Your task to perform on an android device: What's a good restaurant in Boston? Image 0: 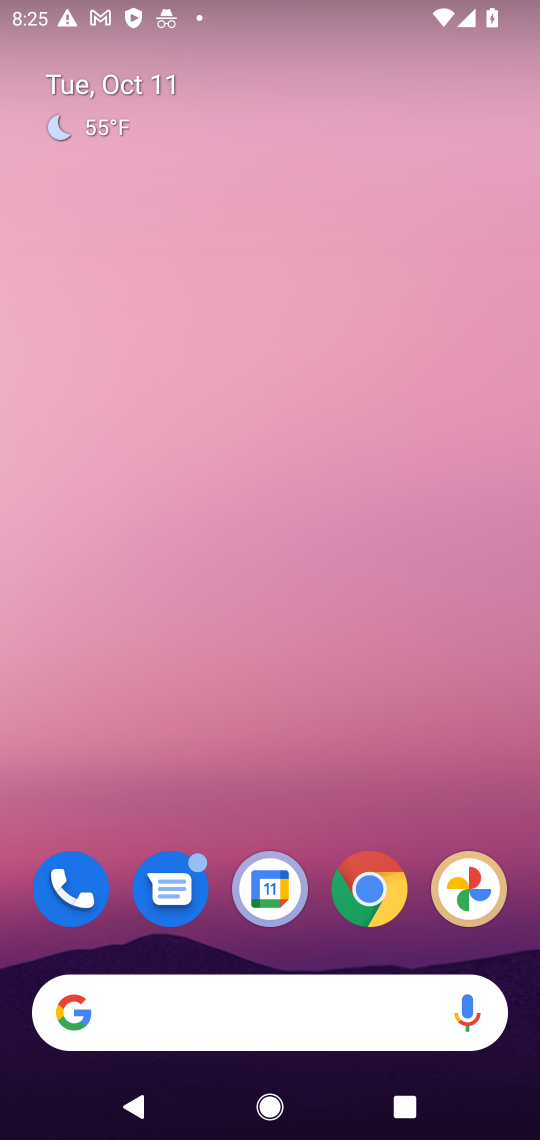
Step 0: click (216, 1037)
Your task to perform on an android device: What's a good restaurant in Boston? Image 1: 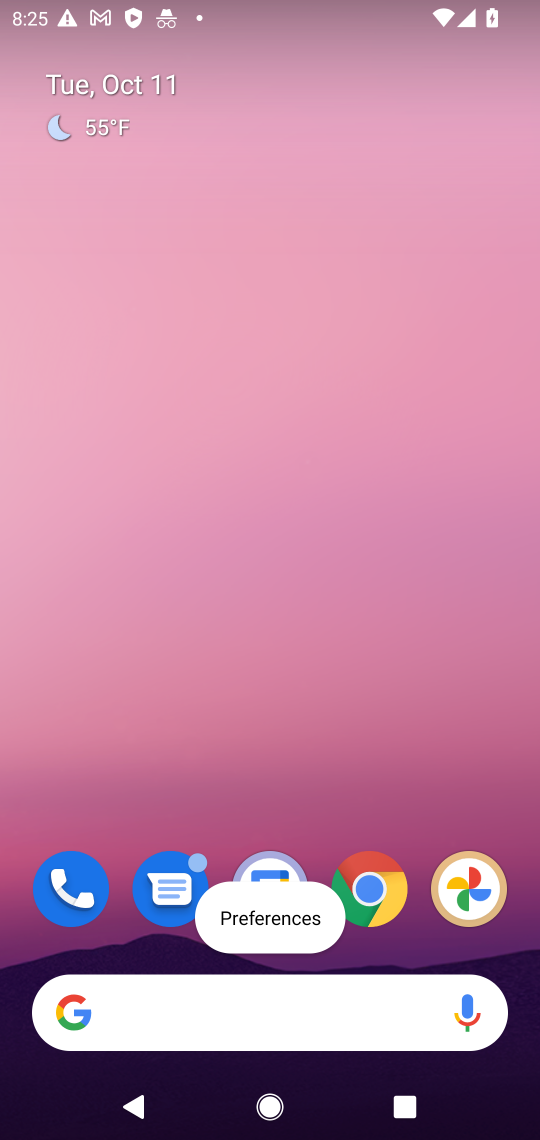
Step 1: click (211, 1014)
Your task to perform on an android device: What's a good restaurant in Boston? Image 2: 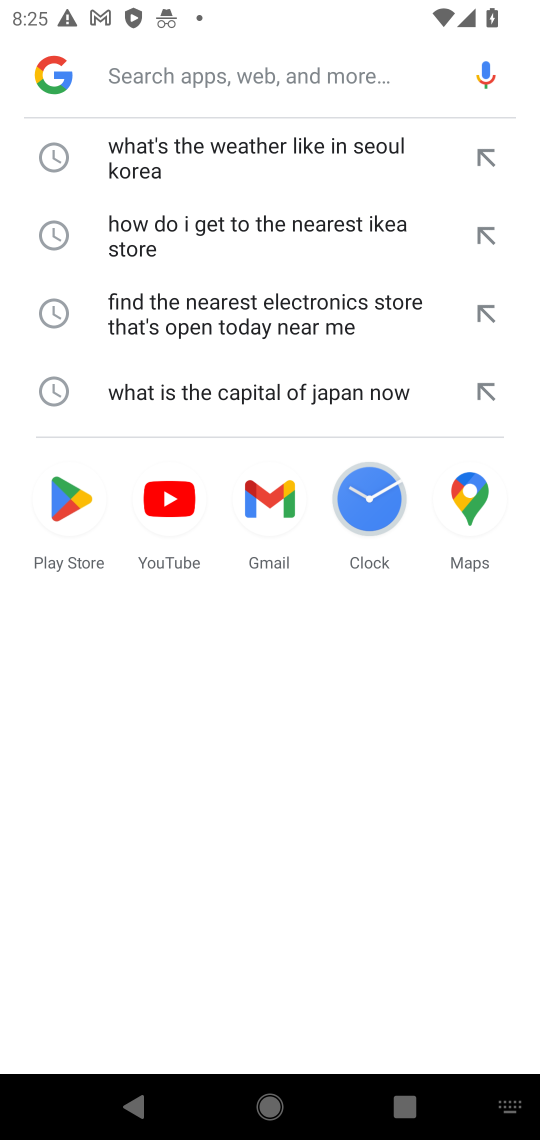
Step 2: click (202, 1017)
Your task to perform on an android device: What's a good restaurant in Boston? Image 3: 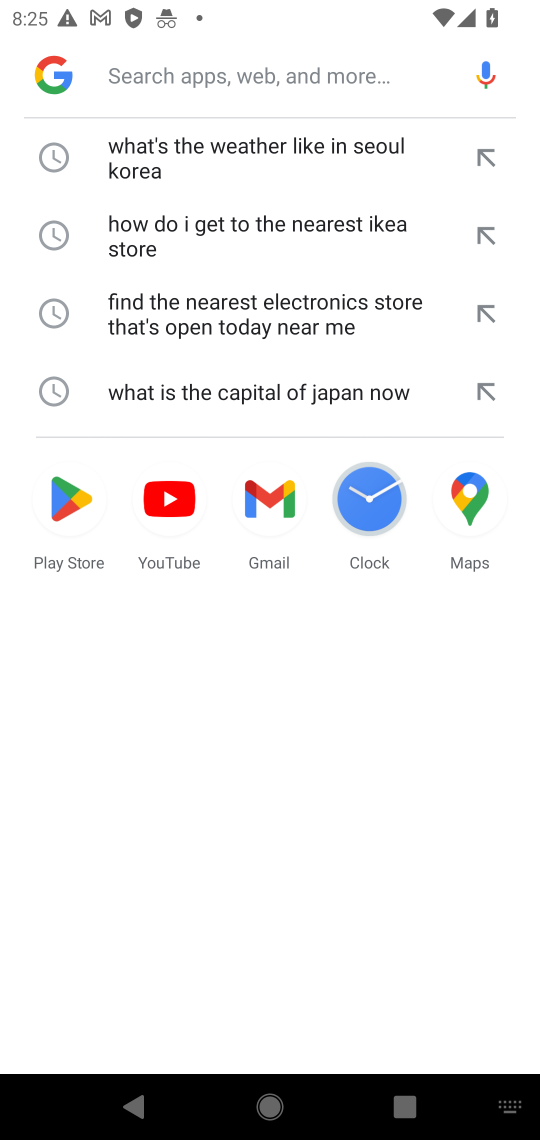
Step 3: click (156, 76)
Your task to perform on an android device: What's a good restaurant in Boston? Image 4: 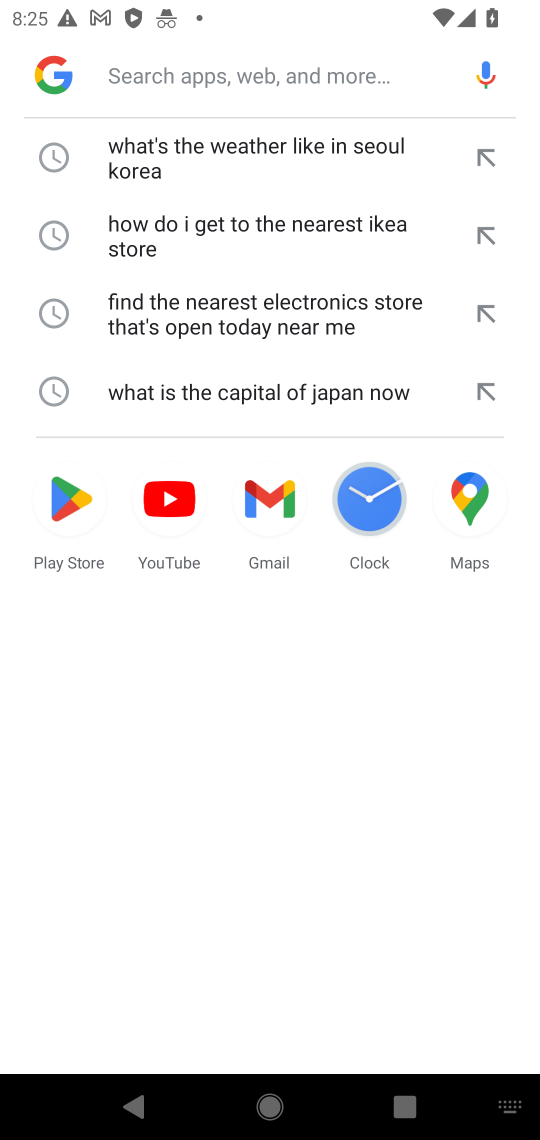
Step 4: type "What's a good restaurant in Boston?"
Your task to perform on an android device: What's a good restaurant in Boston? Image 5: 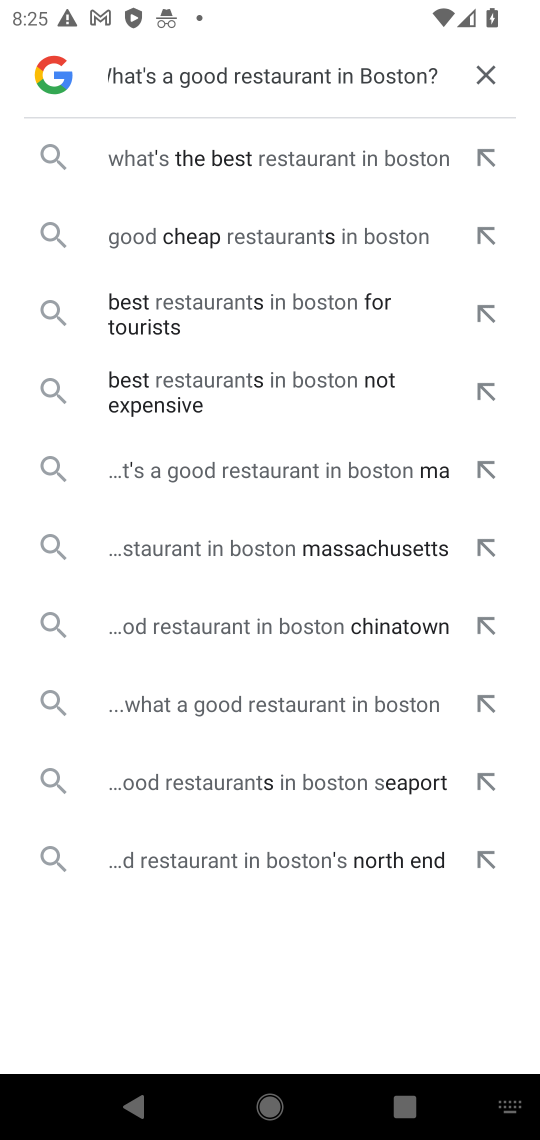
Step 5: click (303, 162)
Your task to perform on an android device: What's a good restaurant in Boston? Image 6: 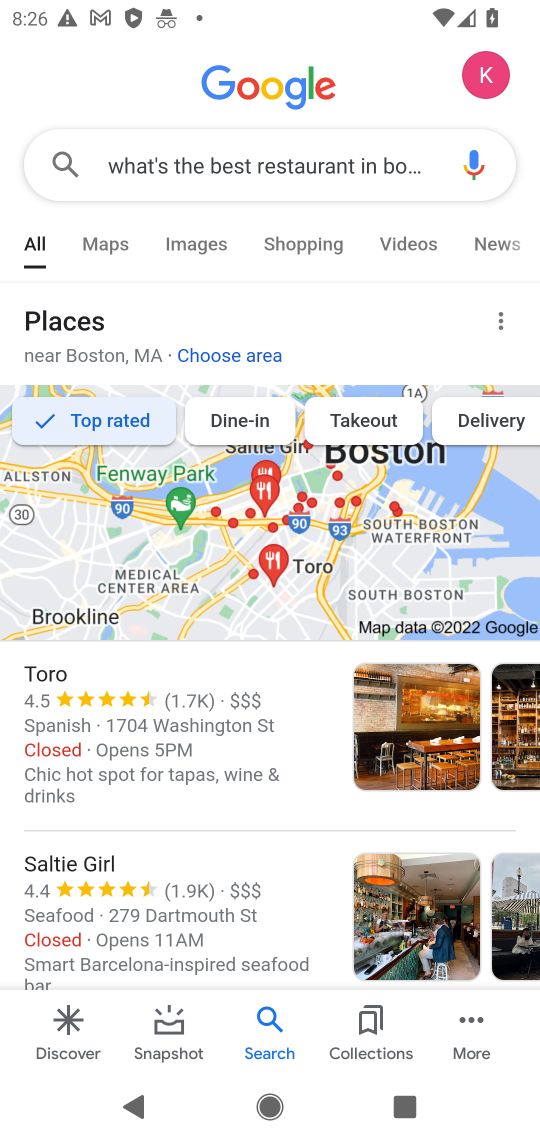
Step 6: task complete